Your task to perform on an android device: find snoozed emails in the gmail app Image 0: 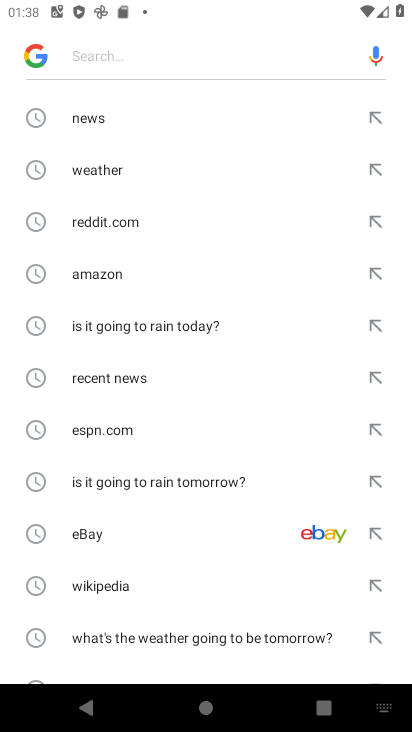
Step 0: press home button
Your task to perform on an android device: find snoozed emails in the gmail app Image 1: 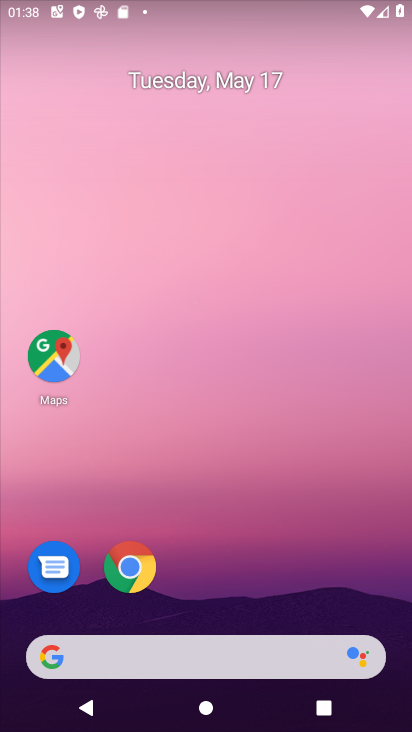
Step 1: drag from (378, 615) to (222, 58)
Your task to perform on an android device: find snoozed emails in the gmail app Image 2: 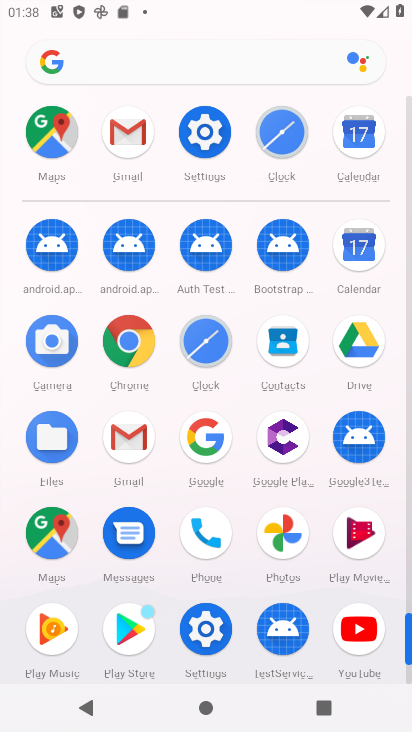
Step 2: click (131, 438)
Your task to perform on an android device: find snoozed emails in the gmail app Image 3: 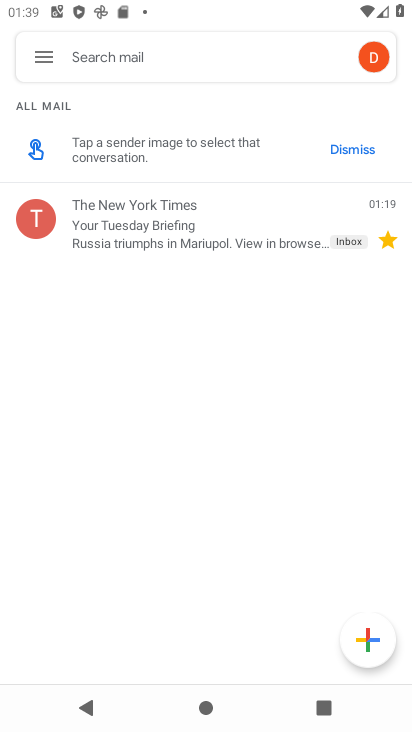
Step 3: click (48, 58)
Your task to perform on an android device: find snoozed emails in the gmail app Image 4: 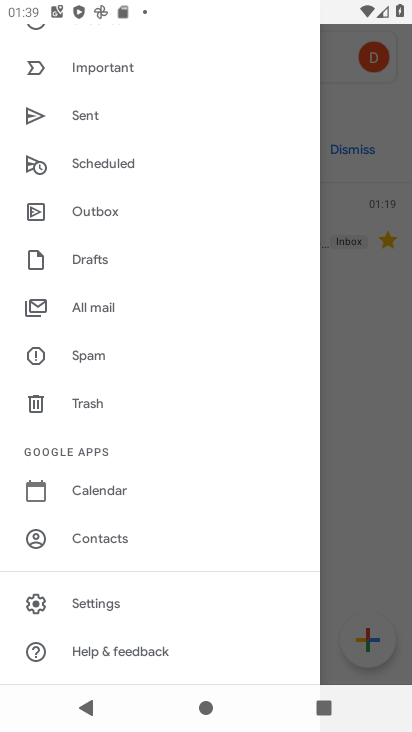
Step 4: drag from (201, 137) to (191, 372)
Your task to perform on an android device: find snoozed emails in the gmail app Image 5: 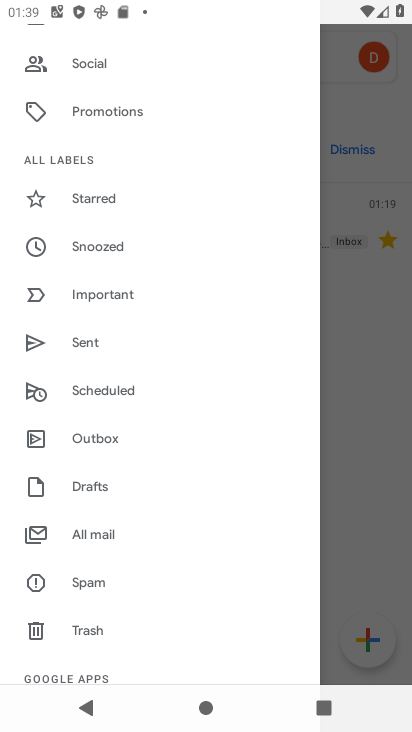
Step 5: click (92, 239)
Your task to perform on an android device: find snoozed emails in the gmail app Image 6: 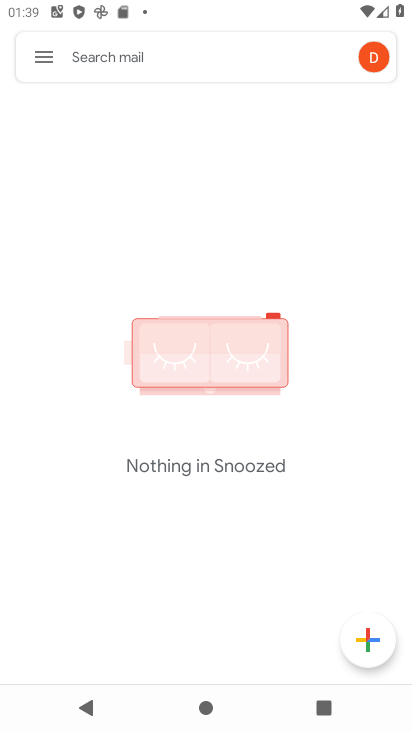
Step 6: task complete